Your task to perform on an android device: Search for "logitech g pro" on amazon.com, select the first entry, add it to the cart, then select checkout. Image 0: 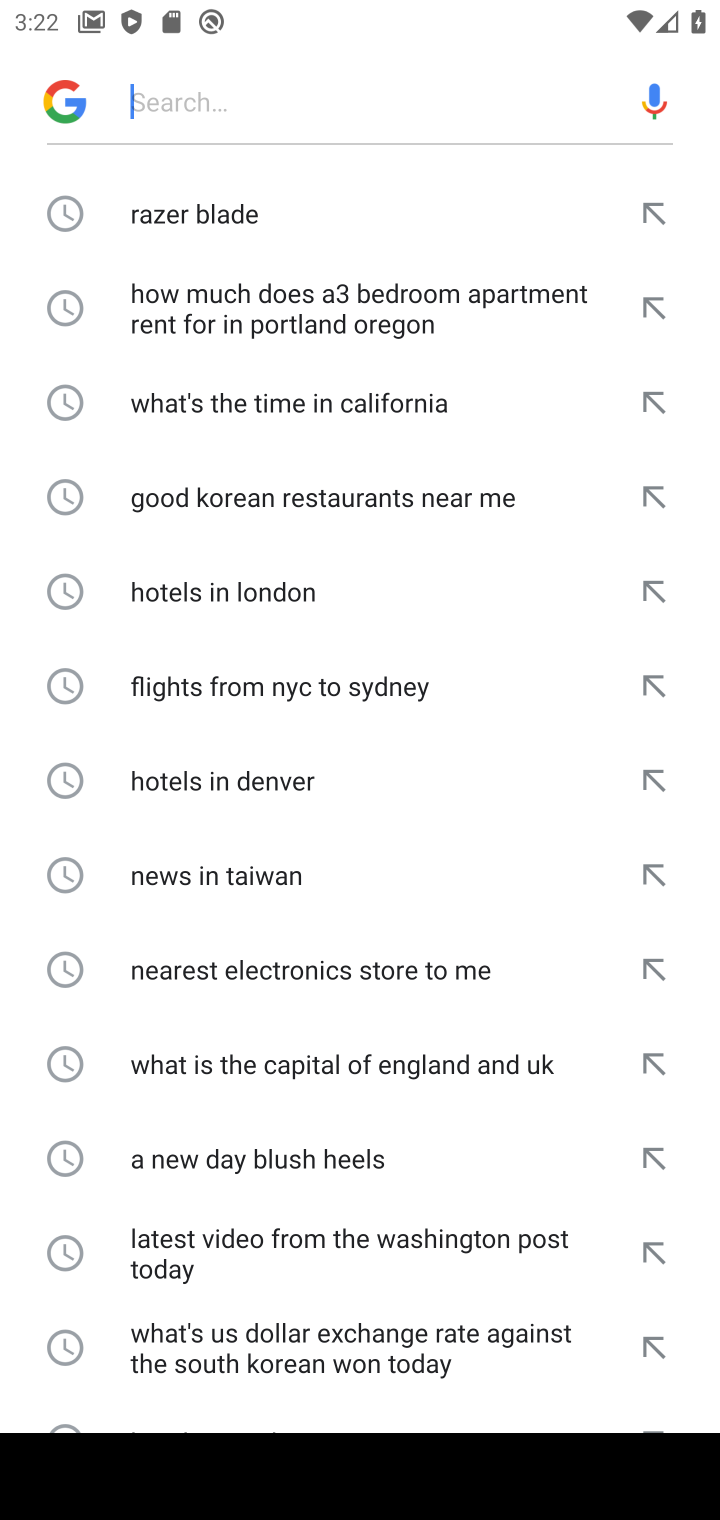
Step 0: type "amazon.com"
Your task to perform on an android device: Search for "logitech g pro" on amazon.com, select the first entry, add it to the cart, then select checkout. Image 1: 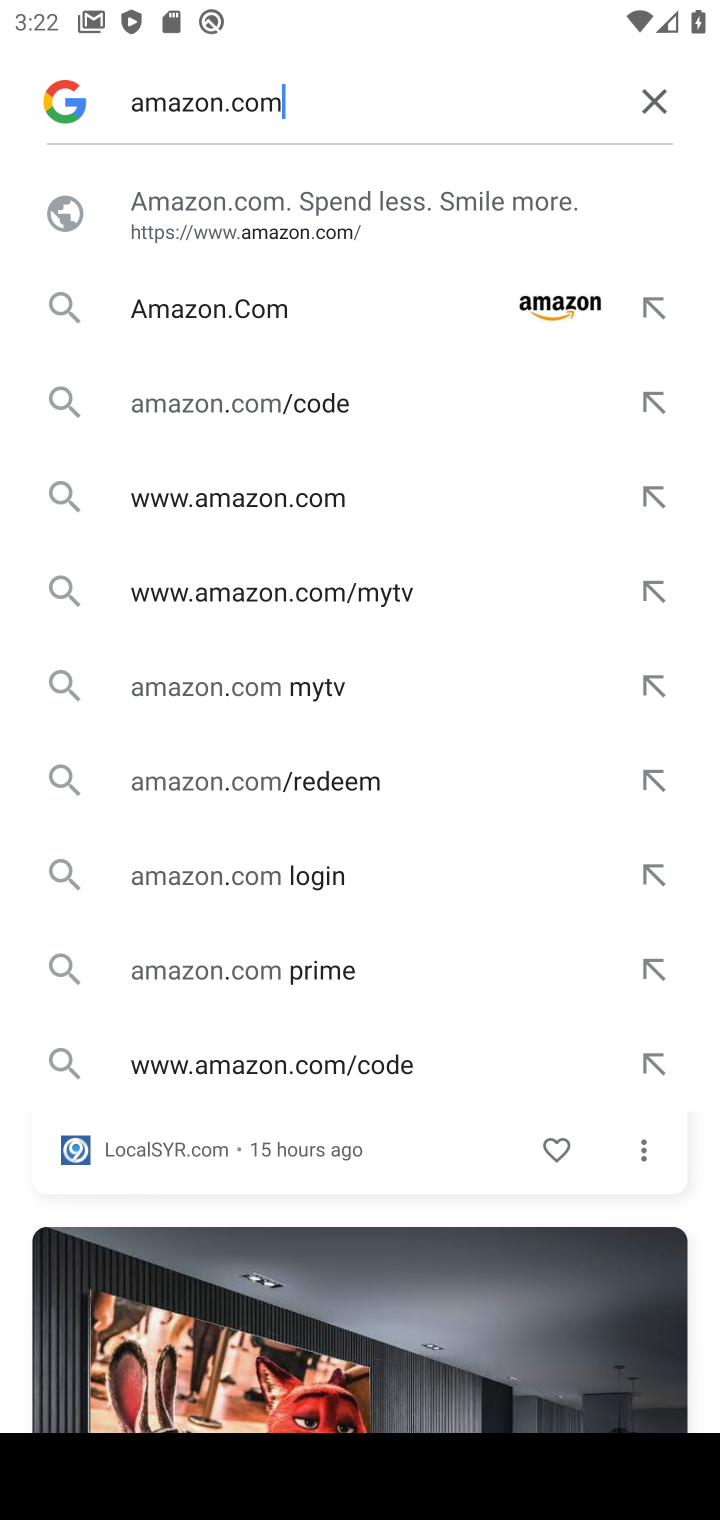
Step 1: press home button
Your task to perform on an android device: Search for "logitech g pro" on amazon.com, select the first entry, add it to the cart, then select checkout. Image 2: 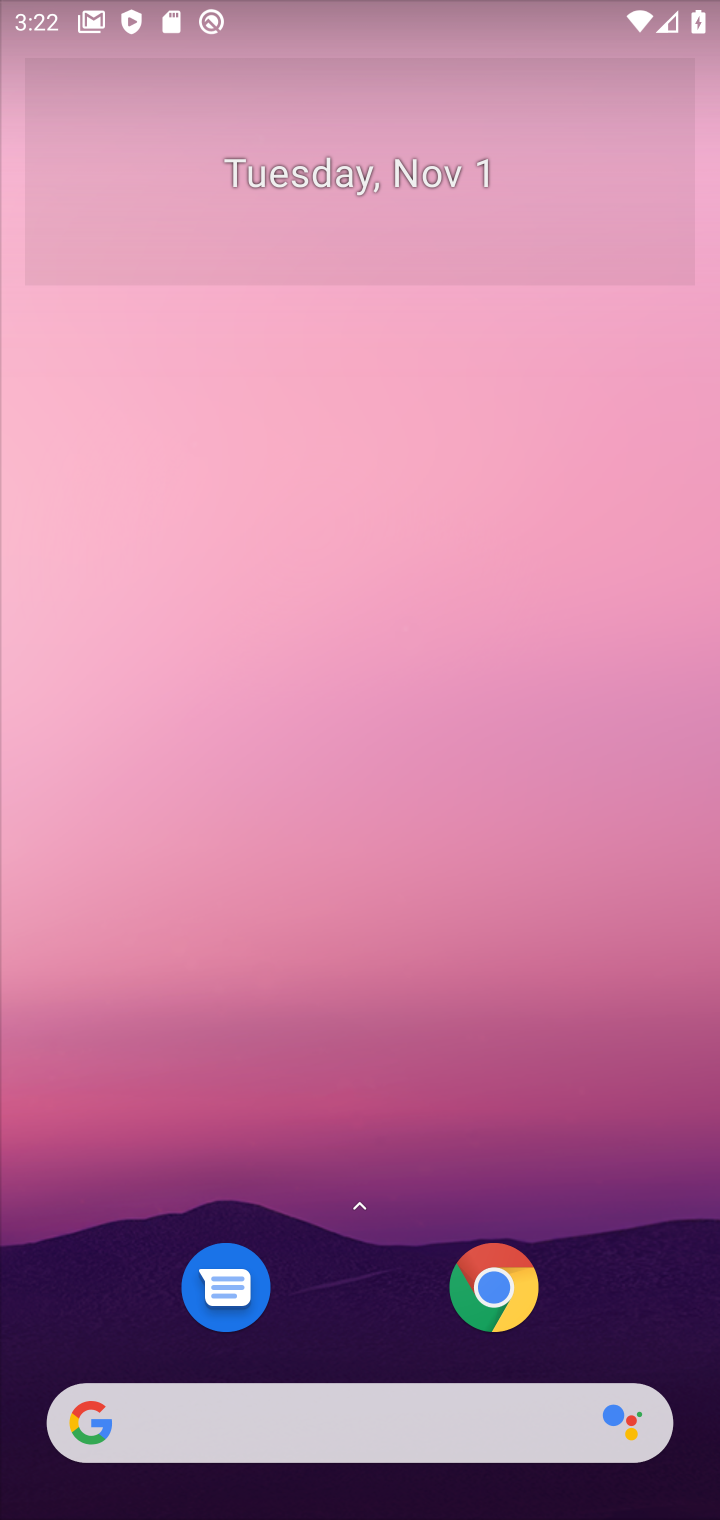
Step 2: drag from (390, 1077) to (355, 123)
Your task to perform on an android device: Search for "logitech g pro" on amazon.com, select the first entry, add it to the cart, then select checkout. Image 3: 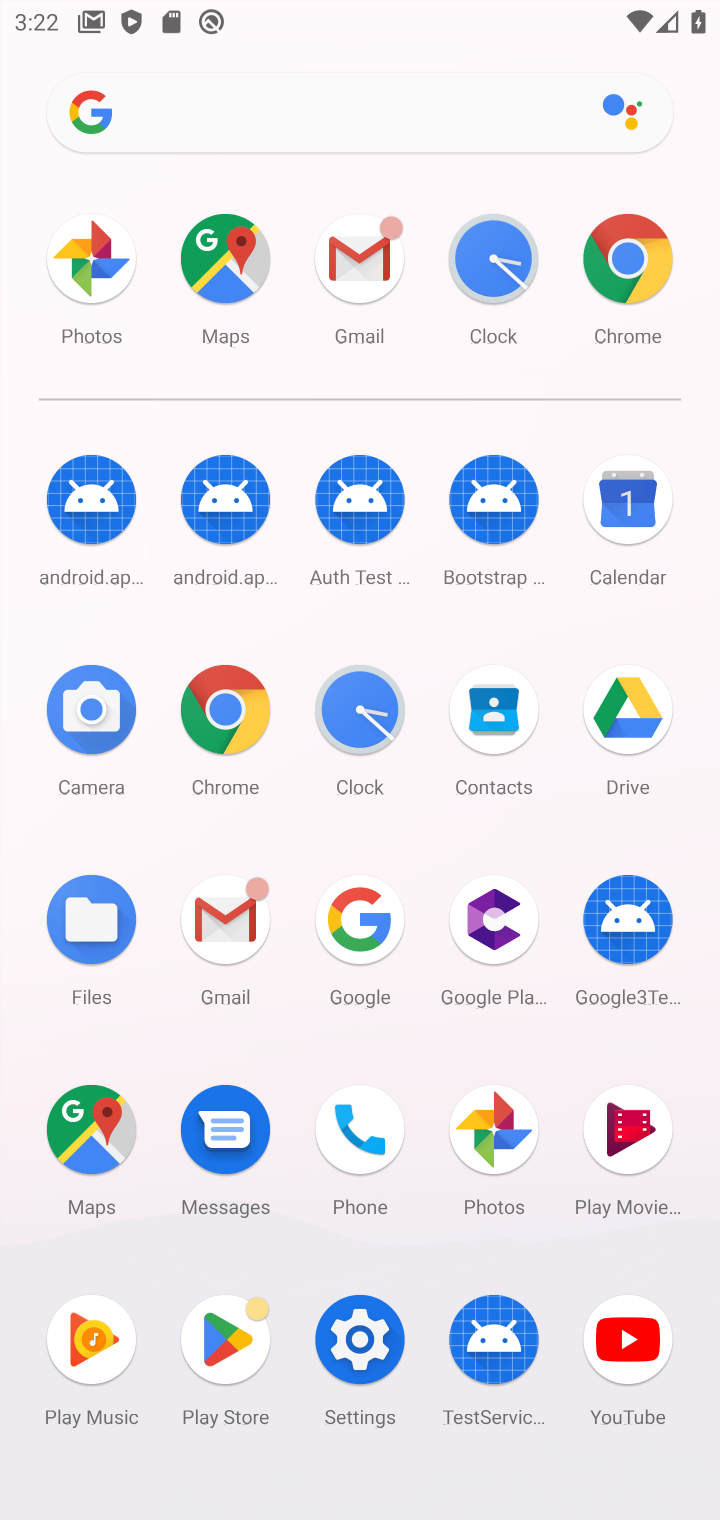
Step 3: click (207, 706)
Your task to perform on an android device: Search for "logitech g pro" on amazon.com, select the first entry, add it to the cart, then select checkout. Image 4: 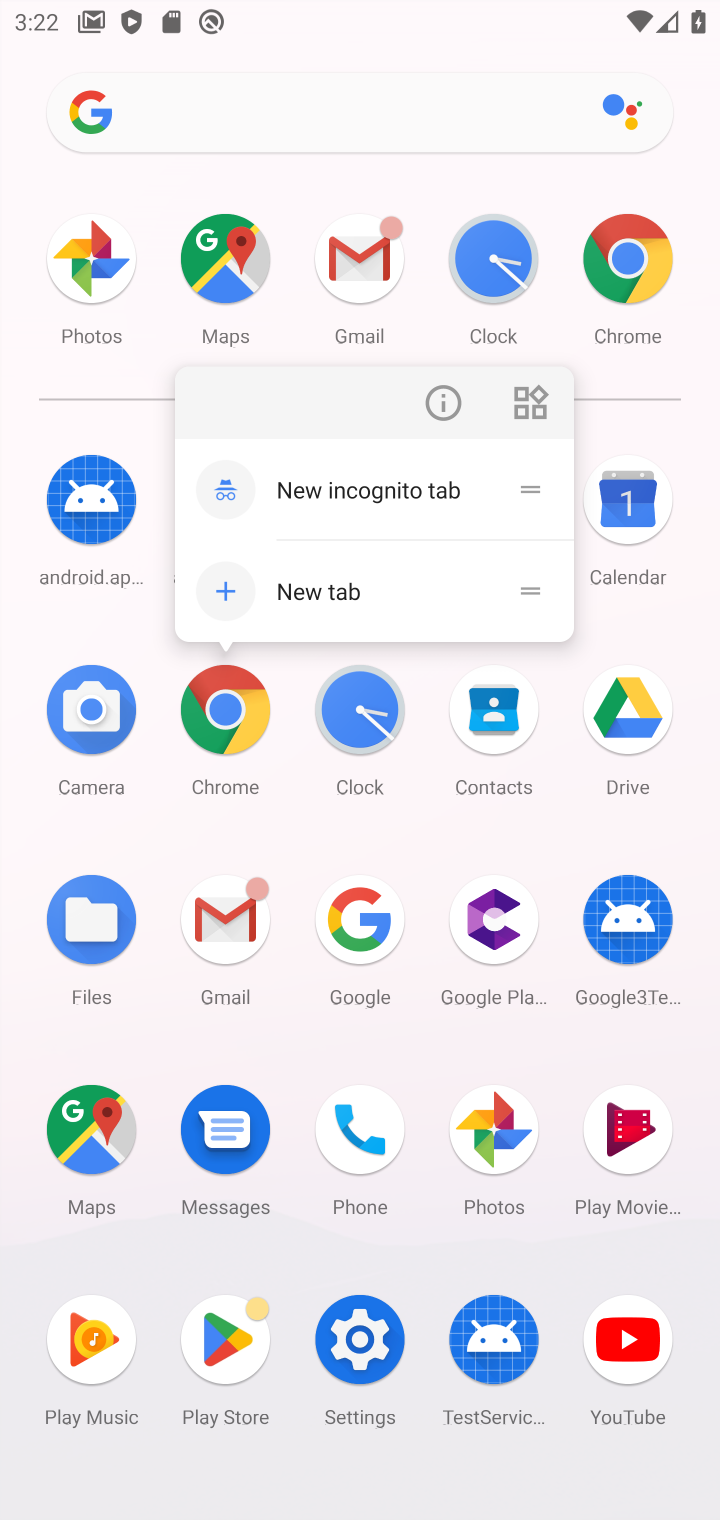
Step 4: click (229, 711)
Your task to perform on an android device: Search for "logitech g pro" on amazon.com, select the first entry, add it to the cart, then select checkout. Image 5: 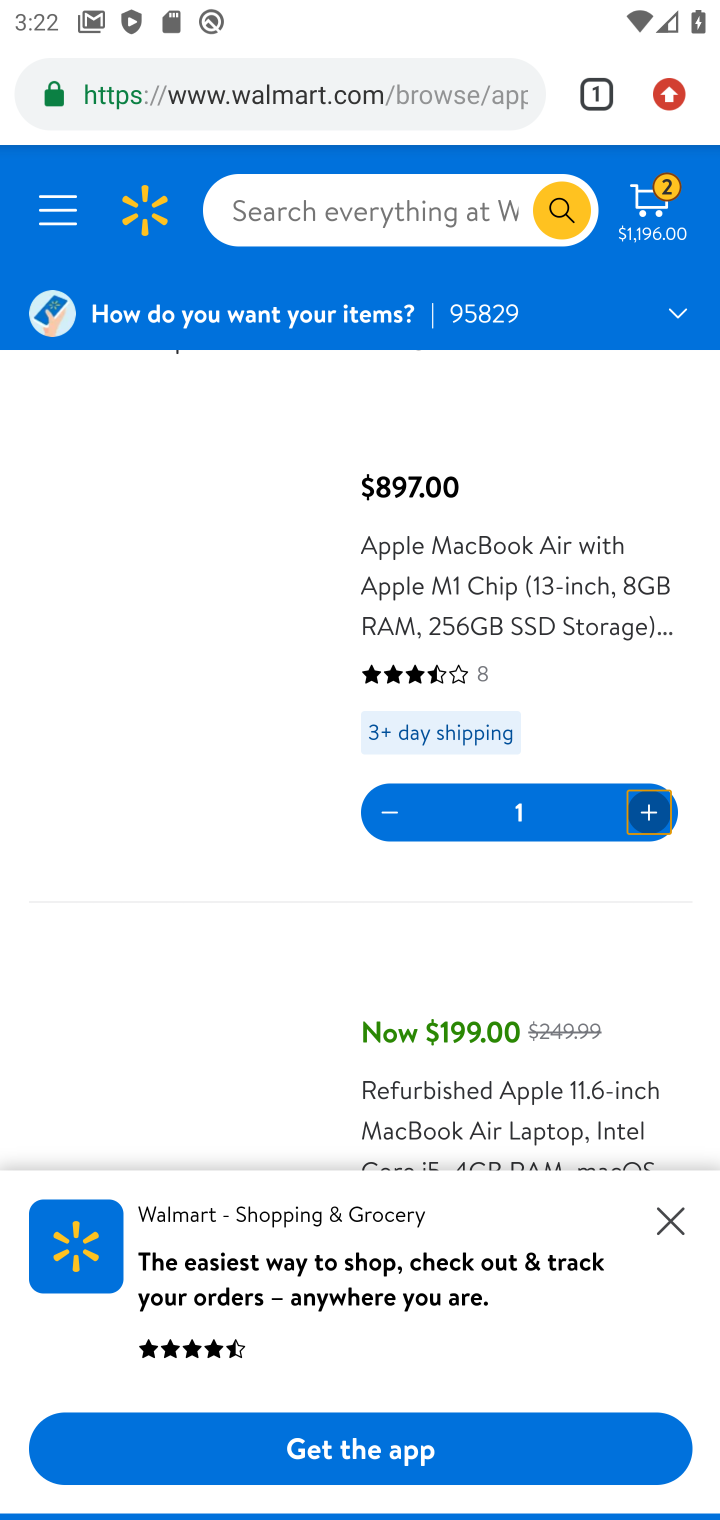
Step 5: click (370, 92)
Your task to perform on an android device: Search for "logitech g pro" on amazon.com, select the first entry, add it to the cart, then select checkout. Image 6: 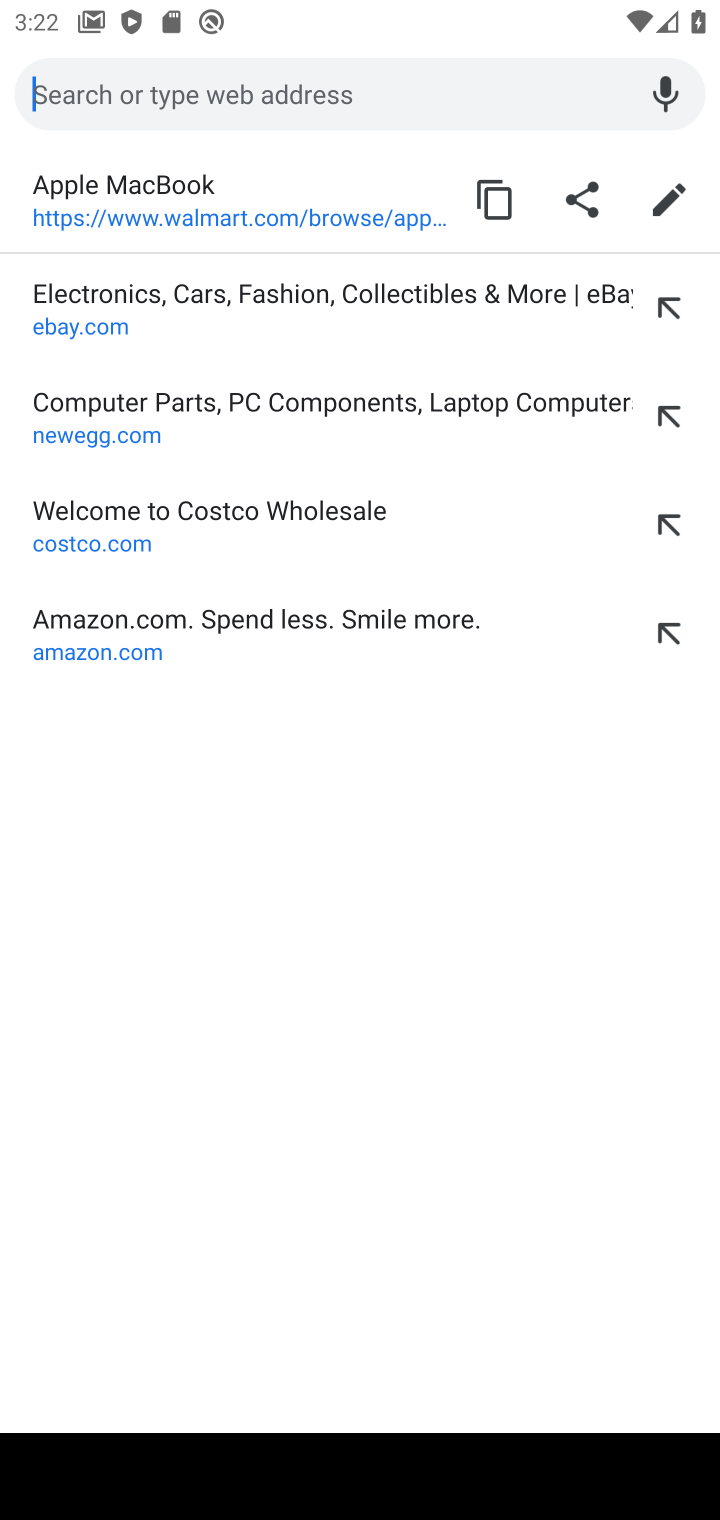
Step 6: type "amazon.com"
Your task to perform on an android device: Search for "logitech g pro" on amazon.com, select the first entry, add it to the cart, then select checkout. Image 7: 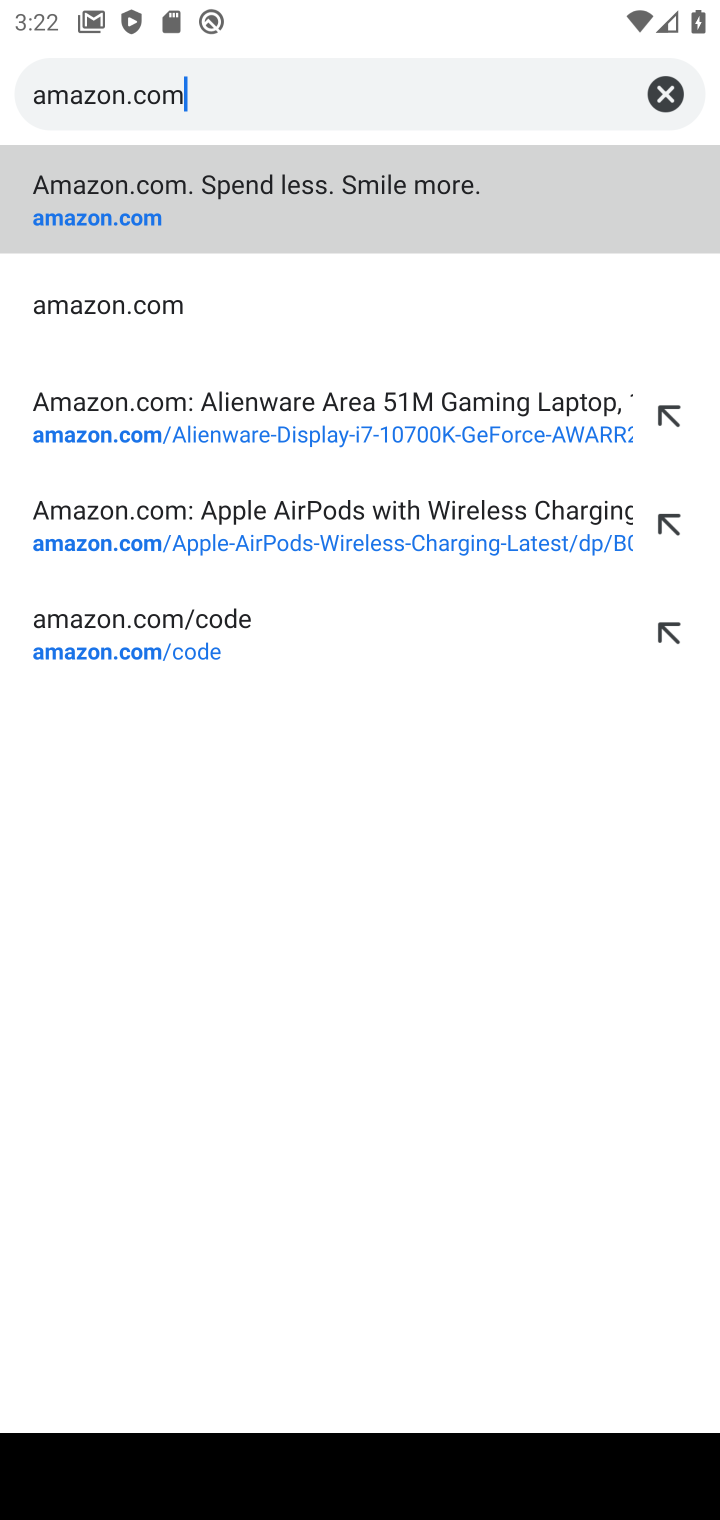
Step 7: press enter
Your task to perform on an android device: Search for "logitech g pro" on amazon.com, select the first entry, add it to the cart, then select checkout. Image 8: 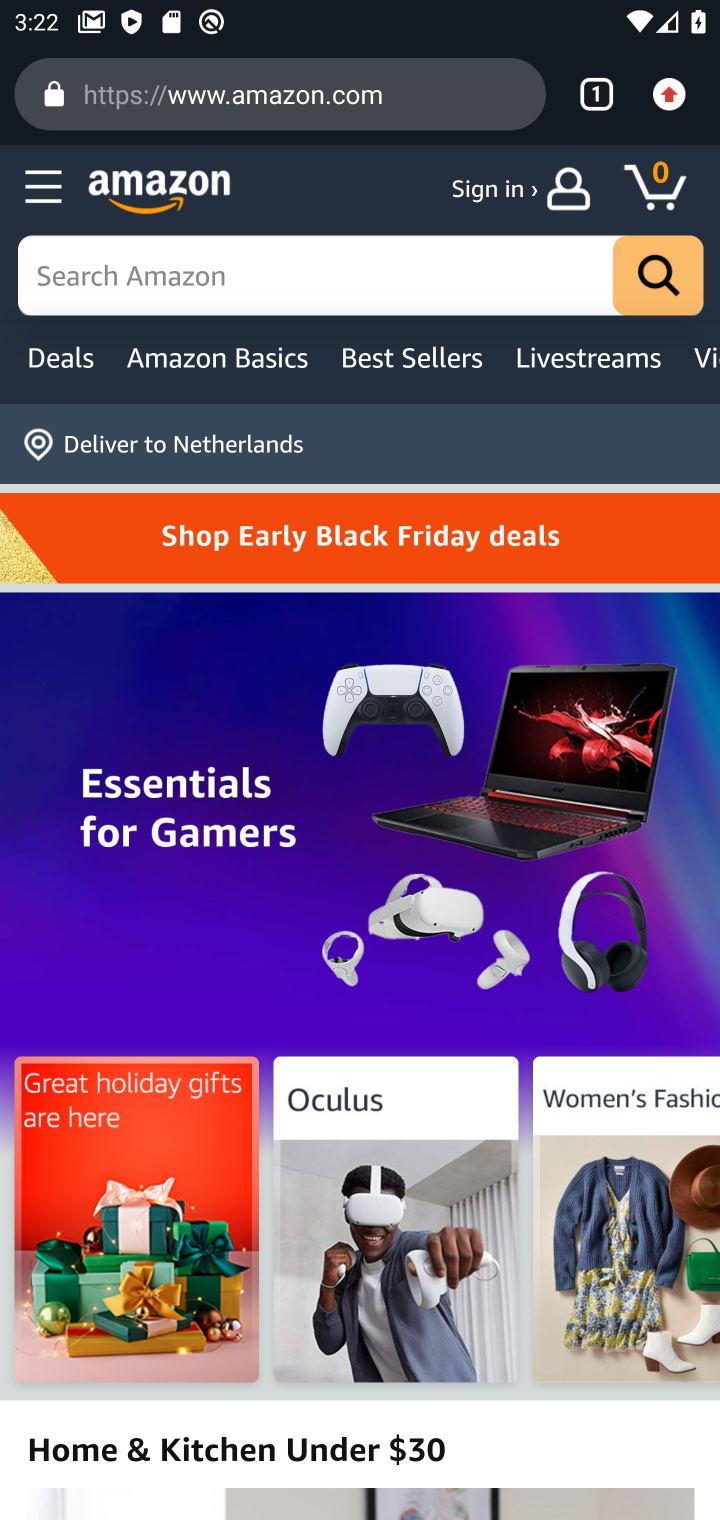
Step 8: click (426, 298)
Your task to perform on an android device: Search for "logitech g pro" on amazon.com, select the first entry, add it to the cart, then select checkout. Image 9: 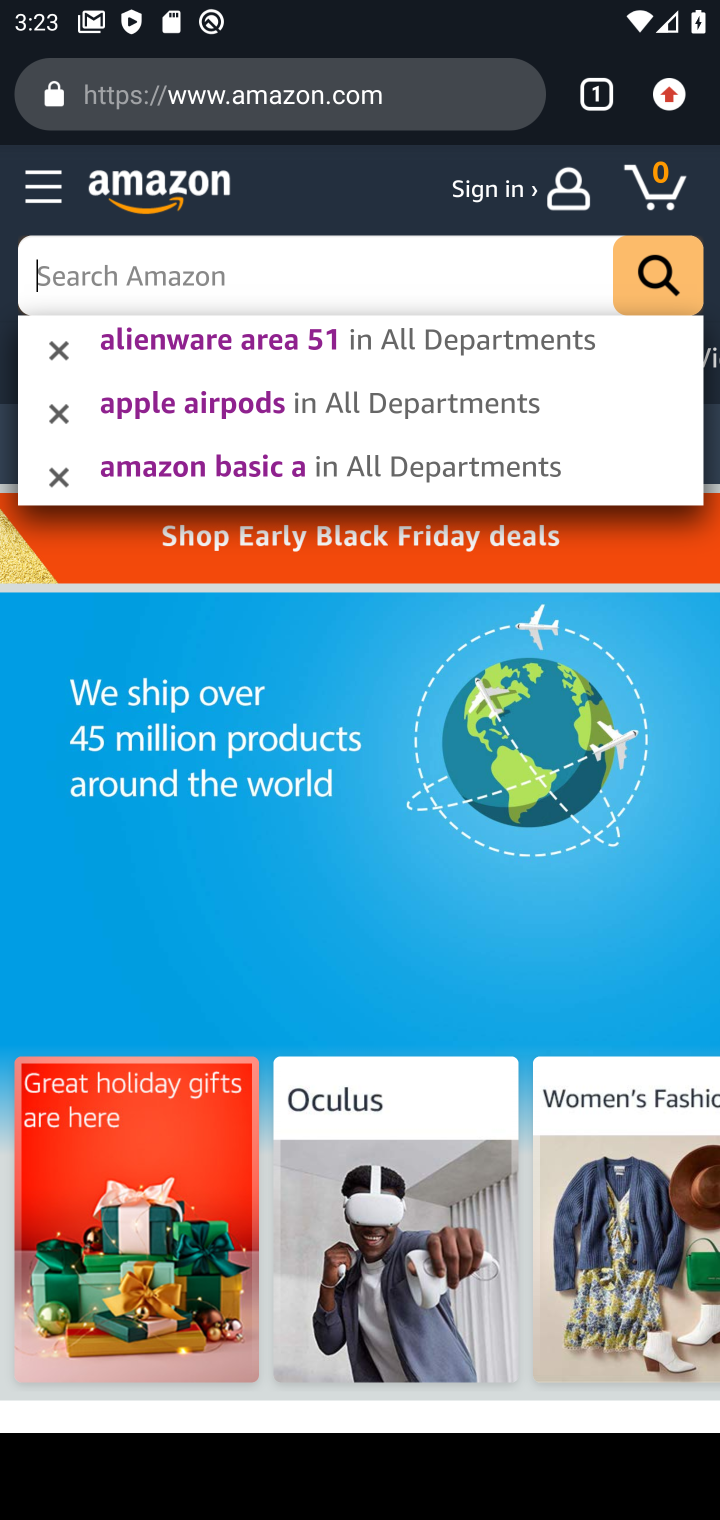
Step 9: type "logitech g pro"
Your task to perform on an android device: Search for "logitech g pro" on amazon.com, select the first entry, add it to the cart, then select checkout. Image 10: 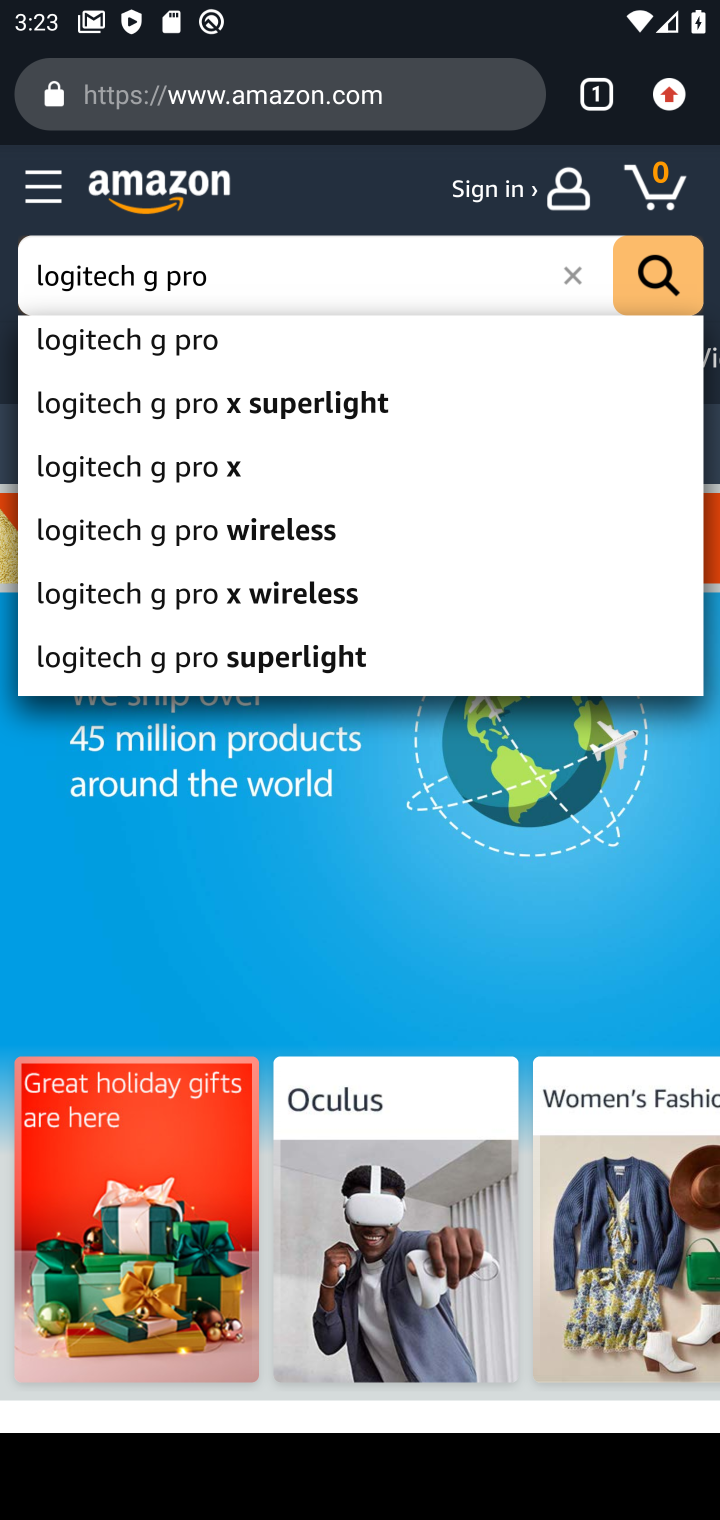
Step 10: press enter
Your task to perform on an android device: Search for "logitech g pro" on amazon.com, select the first entry, add it to the cart, then select checkout. Image 11: 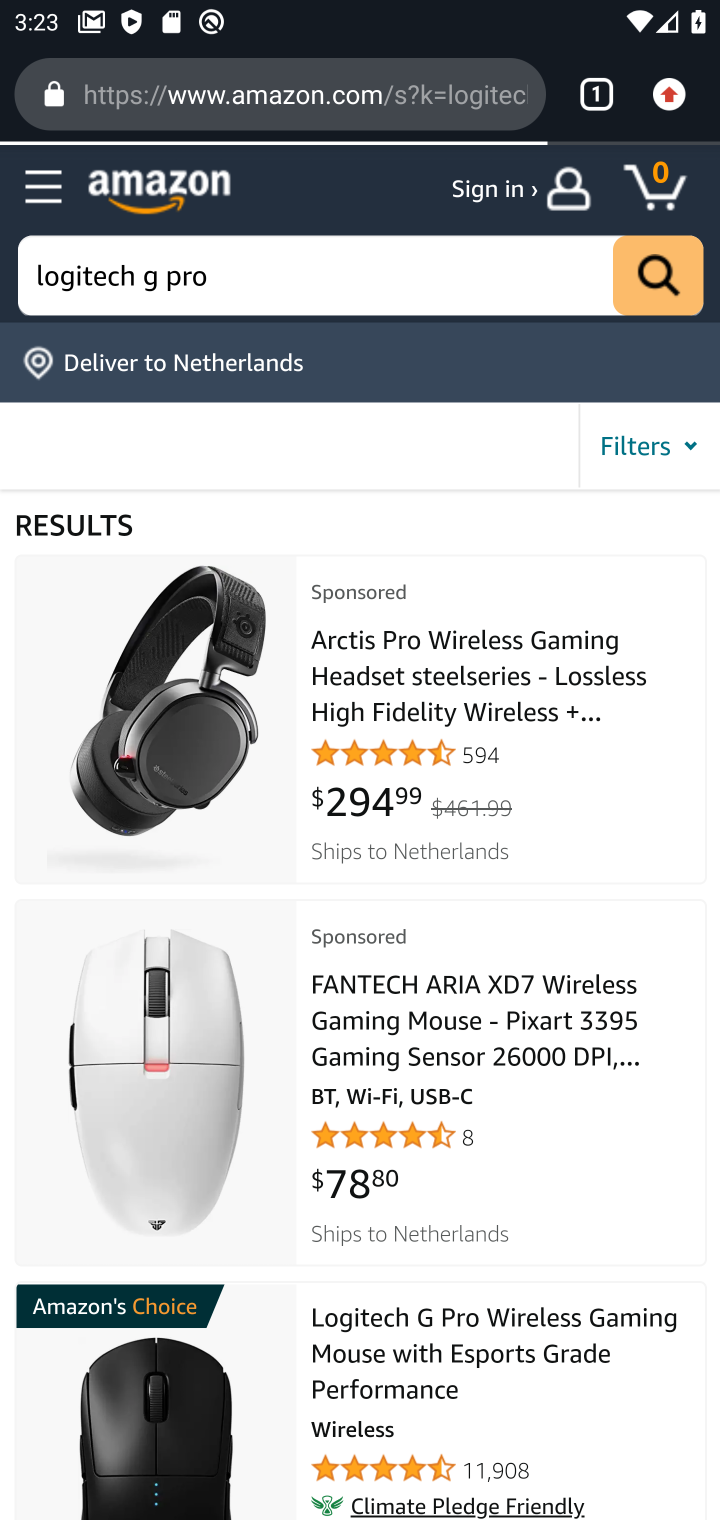
Step 11: drag from (470, 1198) to (368, 386)
Your task to perform on an android device: Search for "logitech g pro" on amazon.com, select the first entry, add it to the cart, then select checkout. Image 12: 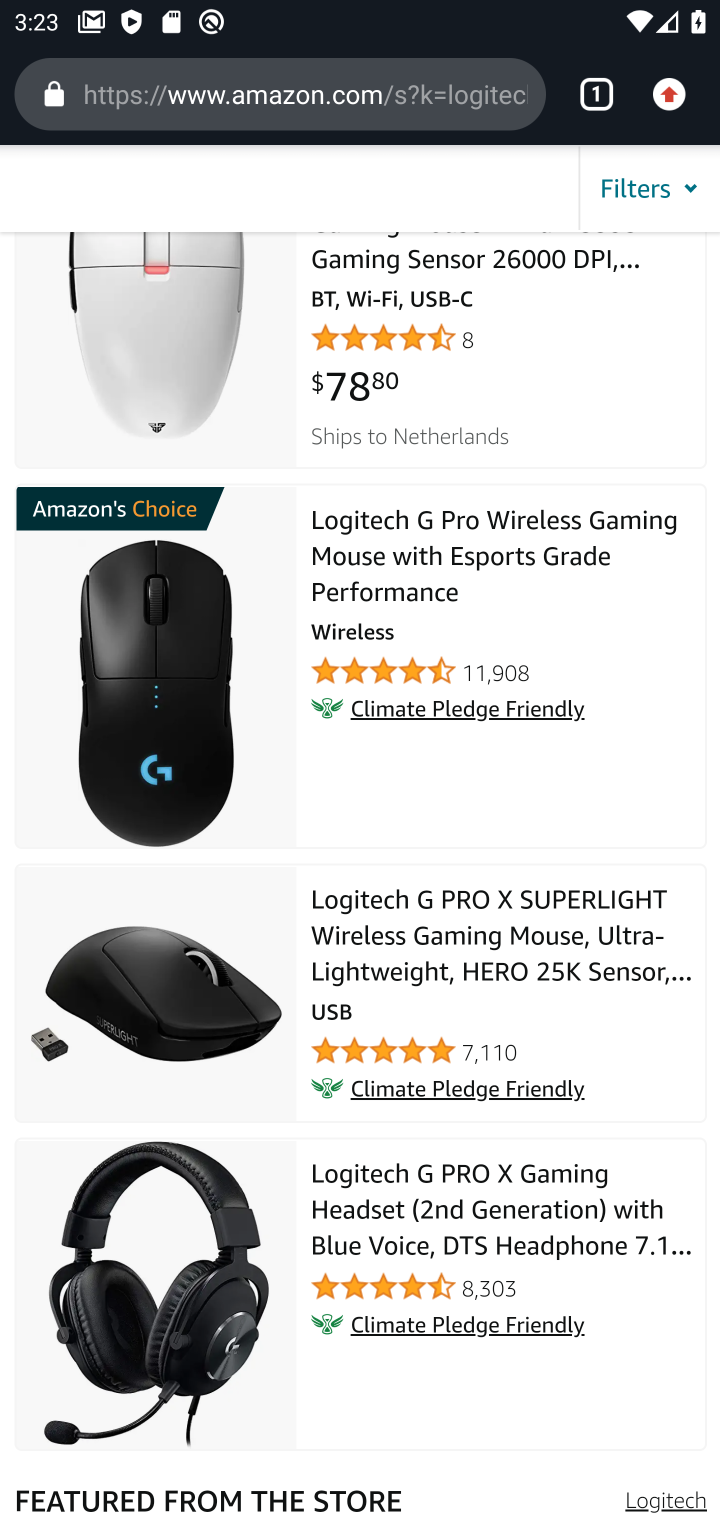
Step 12: click (338, 570)
Your task to perform on an android device: Search for "logitech g pro" on amazon.com, select the first entry, add it to the cart, then select checkout. Image 13: 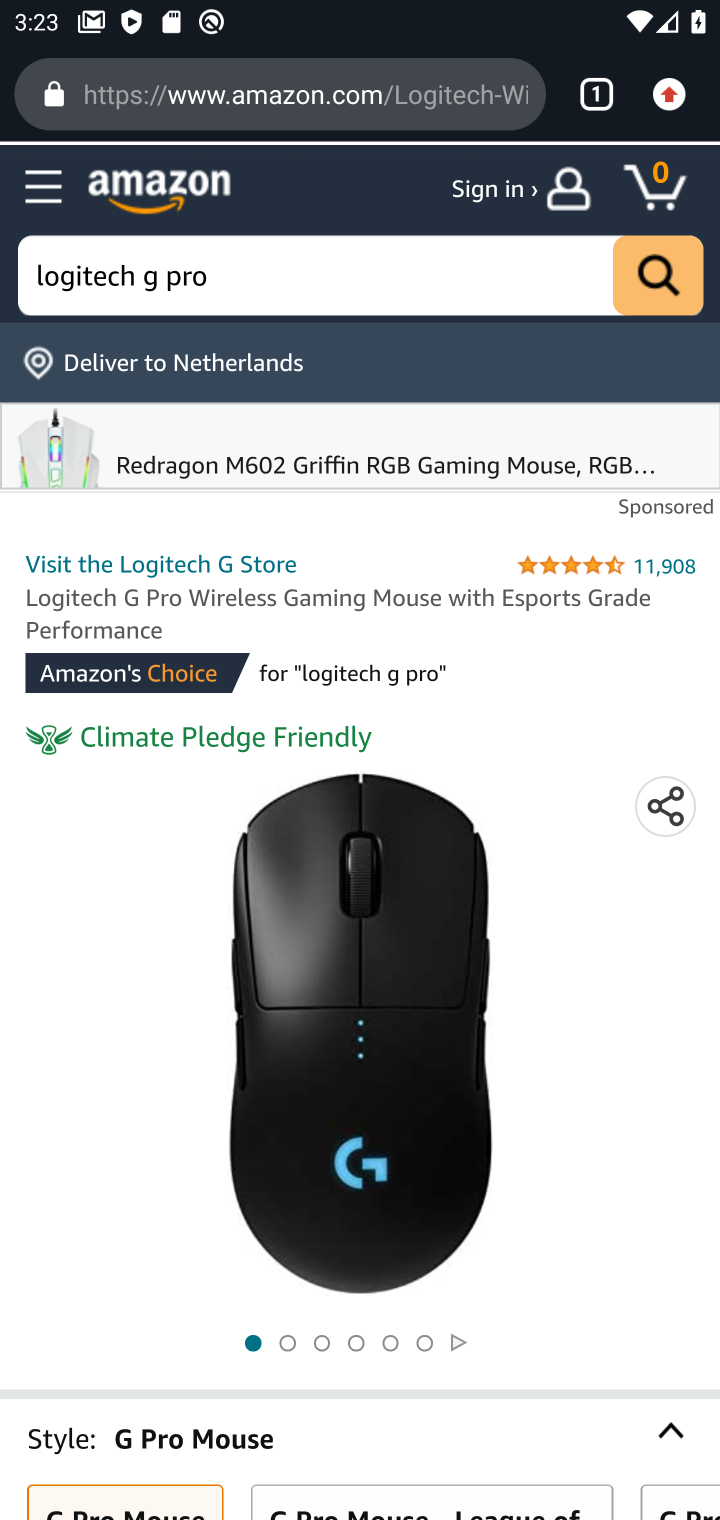
Step 13: task complete